Your task to perform on an android device: What is the capital of Switzerland? Image 0: 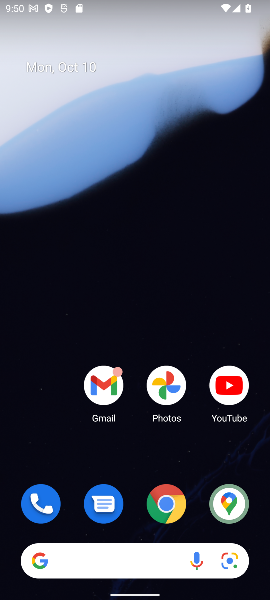
Step 0: click (162, 504)
Your task to perform on an android device: What is the capital of Switzerland? Image 1: 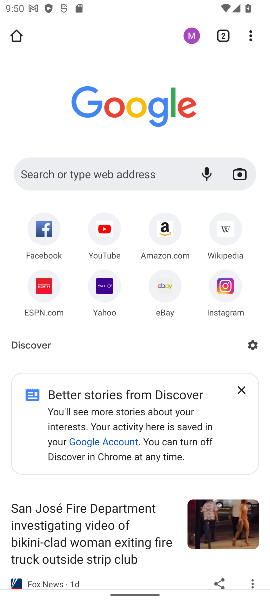
Step 1: click (89, 167)
Your task to perform on an android device: What is the capital of Switzerland? Image 2: 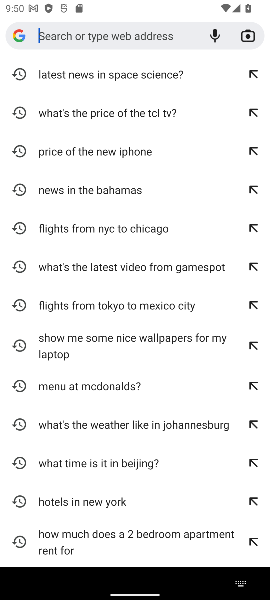
Step 2: type "capital of Switzerland?"
Your task to perform on an android device: What is the capital of Switzerland? Image 3: 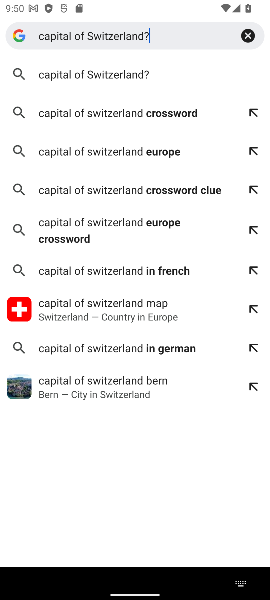
Step 3: click (63, 67)
Your task to perform on an android device: What is the capital of Switzerland? Image 4: 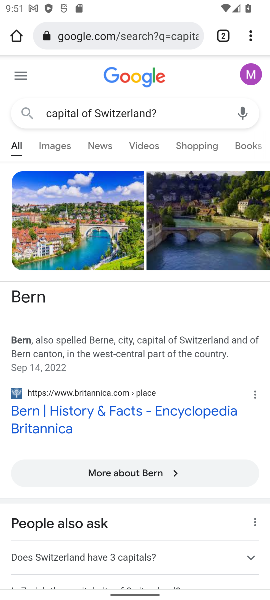
Step 4: task complete